Your task to perform on an android device: Play the last video I watched on Youtube Image 0: 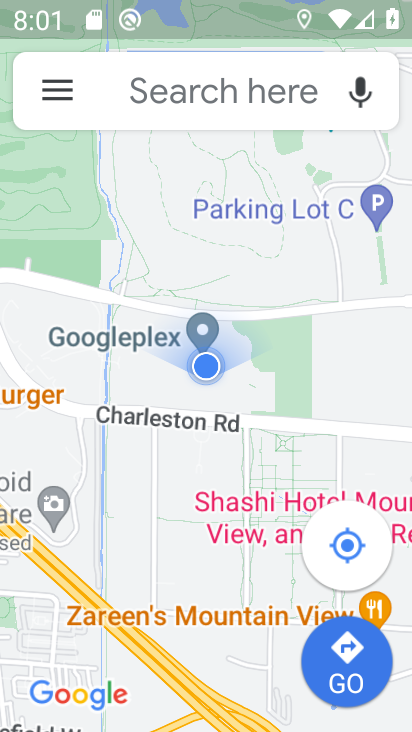
Step 0: press home button
Your task to perform on an android device: Play the last video I watched on Youtube Image 1: 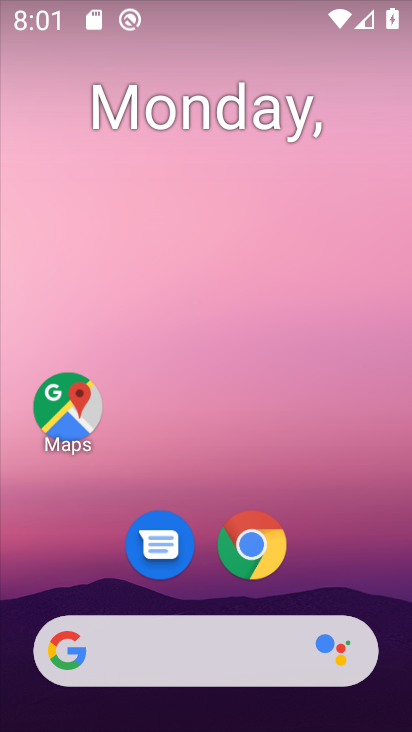
Step 1: click (175, 110)
Your task to perform on an android device: Play the last video I watched on Youtube Image 2: 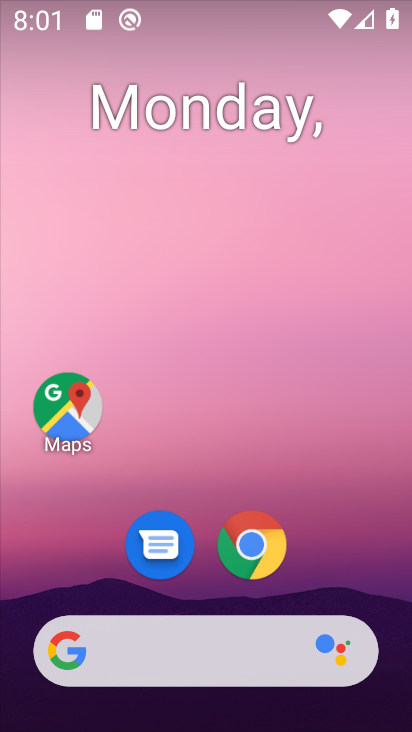
Step 2: click (158, 83)
Your task to perform on an android device: Play the last video I watched on Youtube Image 3: 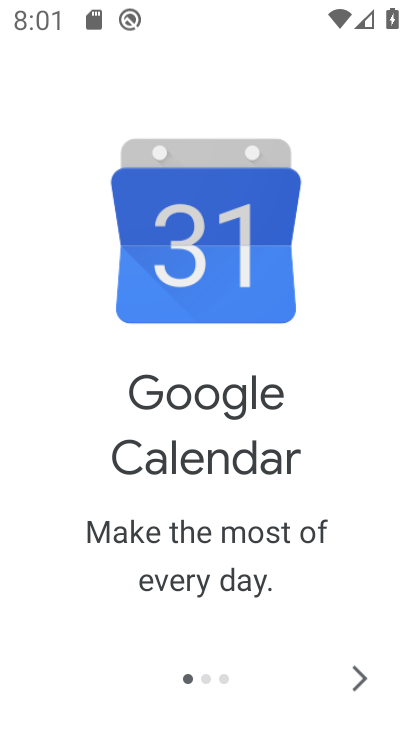
Step 3: press home button
Your task to perform on an android device: Play the last video I watched on Youtube Image 4: 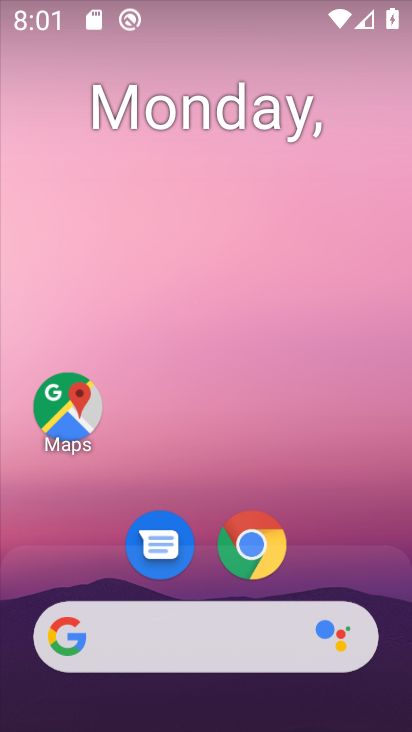
Step 4: drag from (343, 635) to (190, 99)
Your task to perform on an android device: Play the last video I watched on Youtube Image 5: 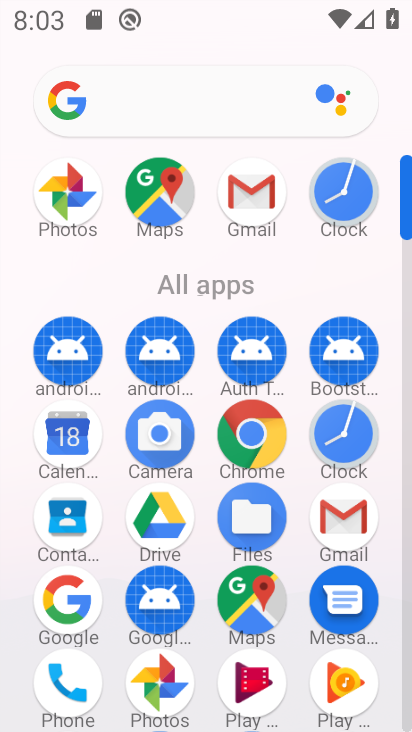
Step 5: drag from (367, 571) to (240, 151)
Your task to perform on an android device: Play the last video I watched on Youtube Image 6: 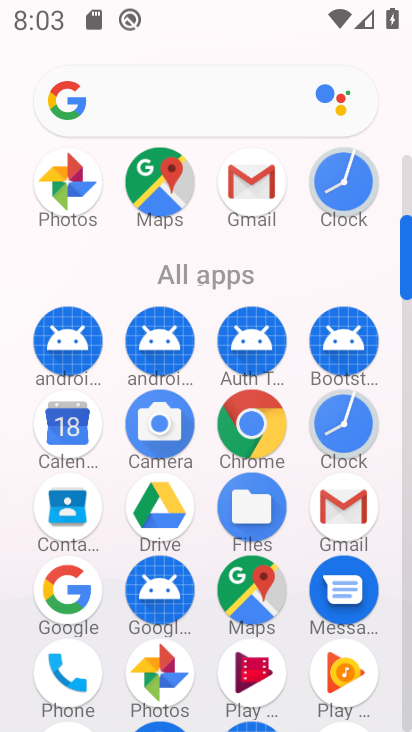
Step 6: click (192, 190)
Your task to perform on an android device: Play the last video I watched on Youtube Image 7: 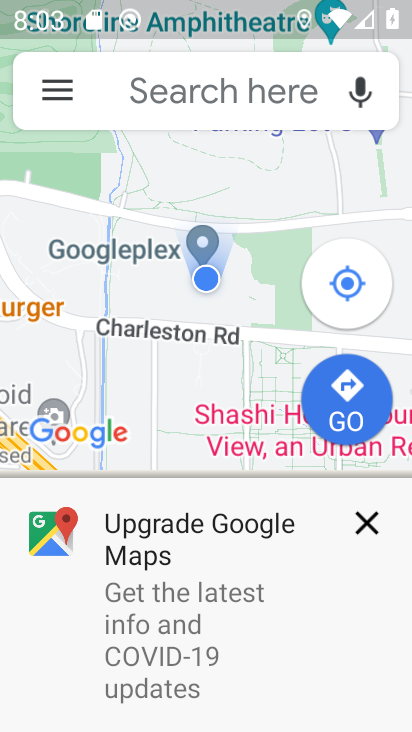
Step 7: click (261, 149)
Your task to perform on an android device: Play the last video I watched on Youtube Image 8: 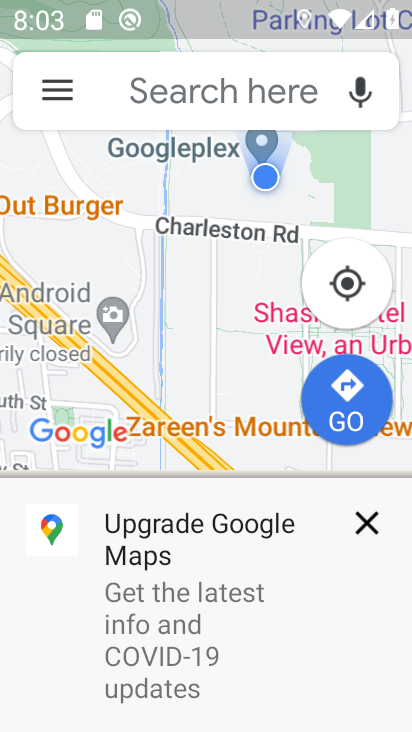
Step 8: click (366, 123)
Your task to perform on an android device: Play the last video I watched on Youtube Image 9: 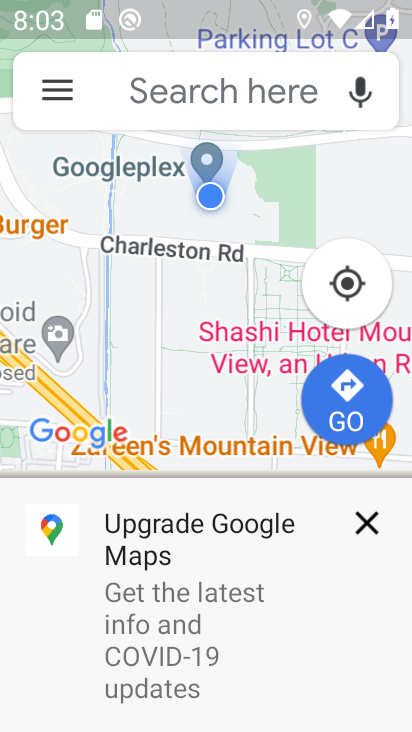
Step 9: drag from (223, 475) to (217, 151)
Your task to perform on an android device: Play the last video I watched on Youtube Image 10: 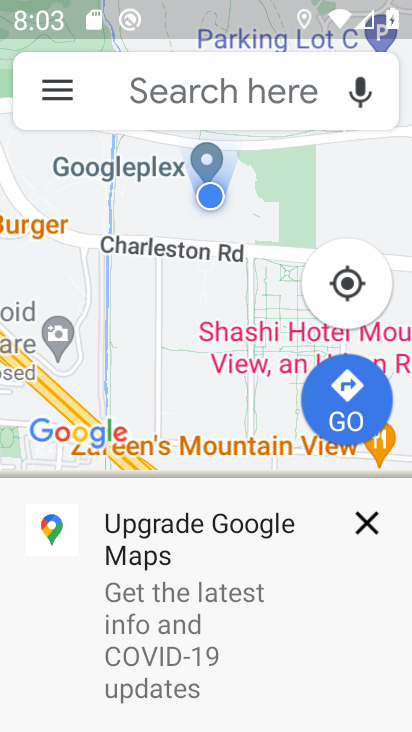
Step 10: press home button
Your task to perform on an android device: Play the last video I watched on Youtube Image 11: 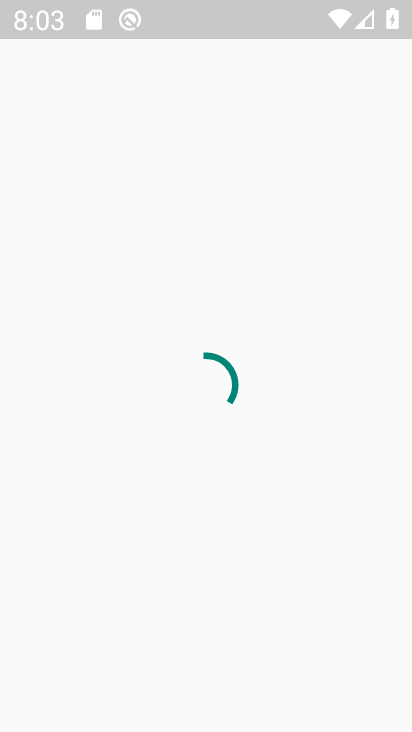
Step 11: press home button
Your task to perform on an android device: Play the last video I watched on Youtube Image 12: 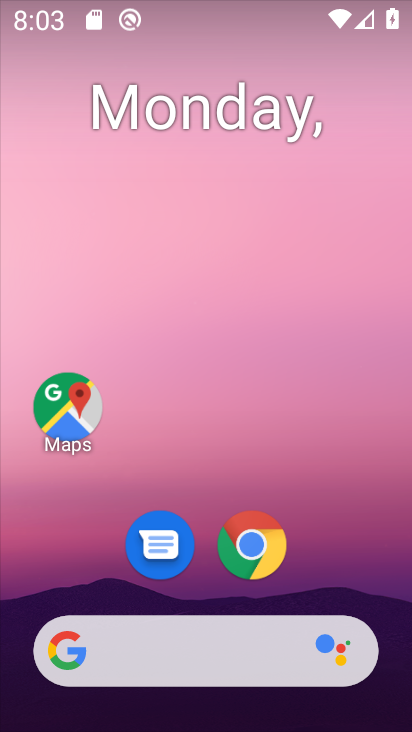
Step 12: drag from (255, 684) to (157, 131)
Your task to perform on an android device: Play the last video I watched on Youtube Image 13: 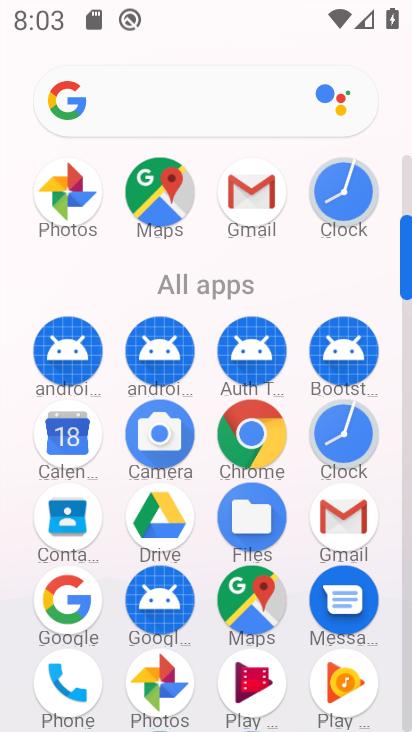
Step 13: drag from (398, 609) to (374, 170)
Your task to perform on an android device: Play the last video I watched on Youtube Image 14: 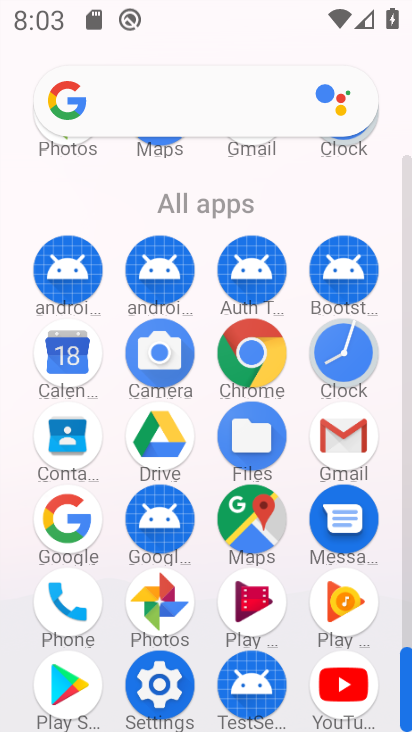
Step 14: click (347, 676)
Your task to perform on an android device: Play the last video I watched on Youtube Image 15: 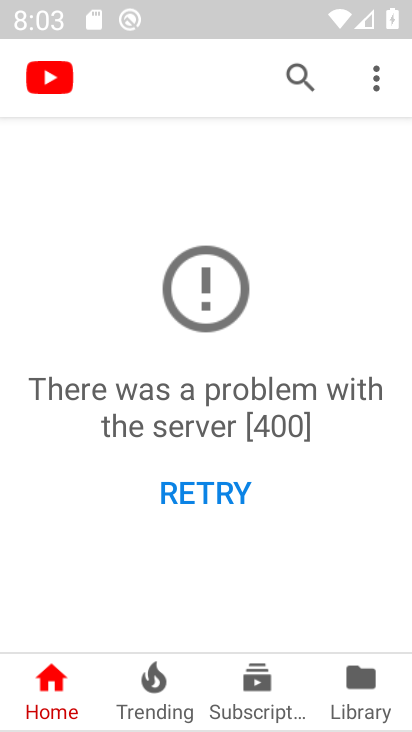
Step 15: task complete